Your task to perform on an android device: toggle wifi Image 0: 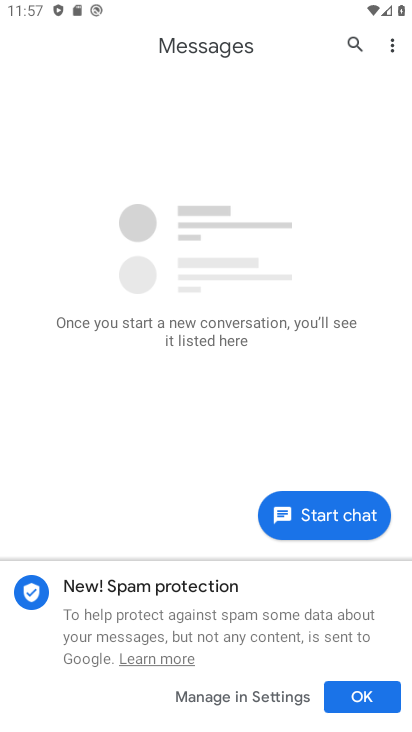
Step 0: press home button
Your task to perform on an android device: toggle wifi Image 1: 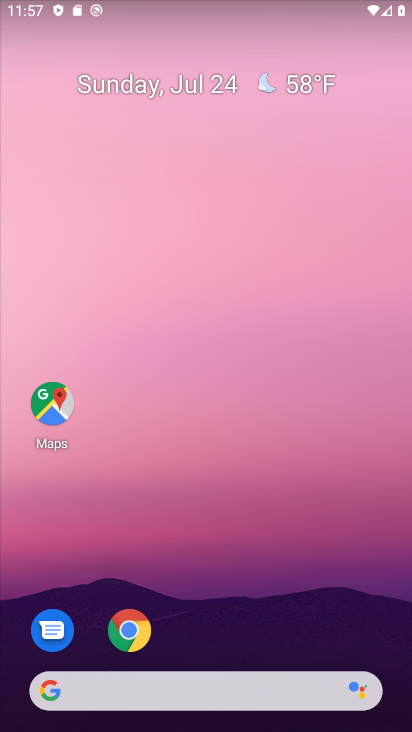
Step 1: drag from (261, 654) to (197, 63)
Your task to perform on an android device: toggle wifi Image 2: 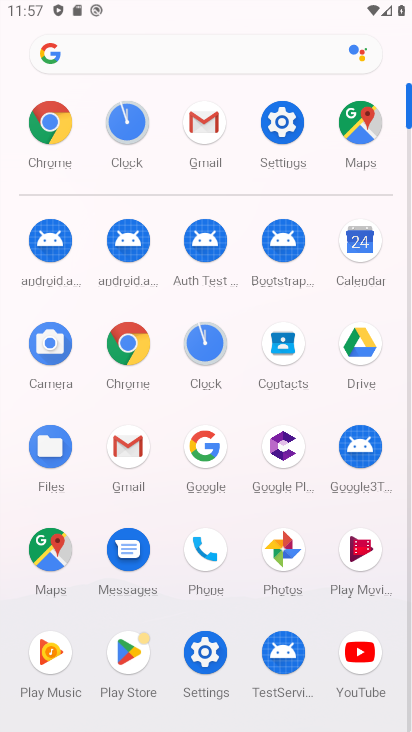
Step 2: click (288, 122)
Your task to perform on an android device: toggle wifi Image 3: 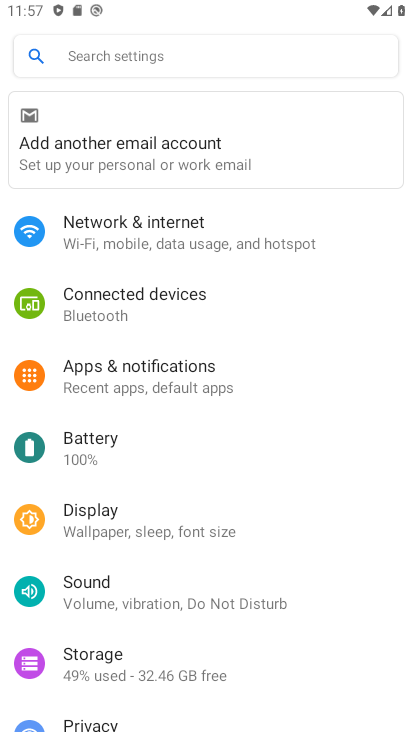
Step 3: click (278, 226)
Your task to perform on an android device: toggle wifi Image 4: 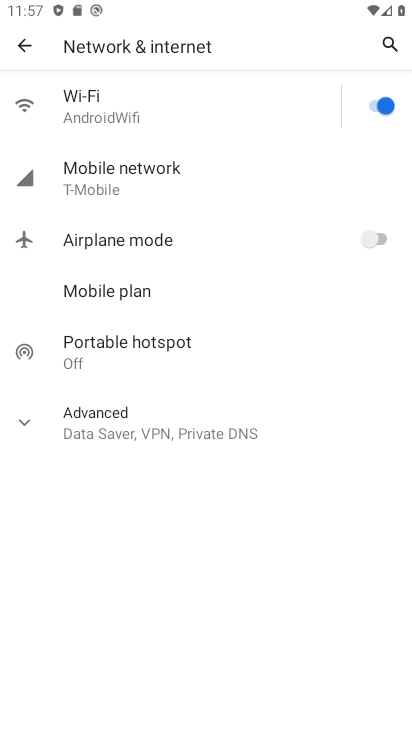
Step 4: click (386, 123)
Your task to perform on an android device: toggle wifi Image 5: 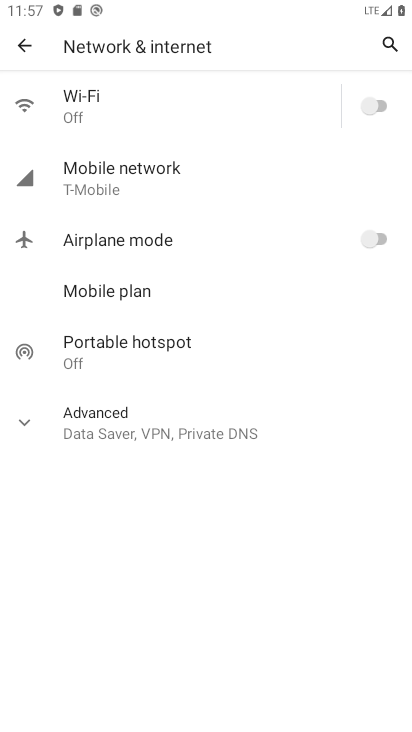
Step 5: task complete